Your task to perform on an android device: turn on improve location accuracy Image 0: 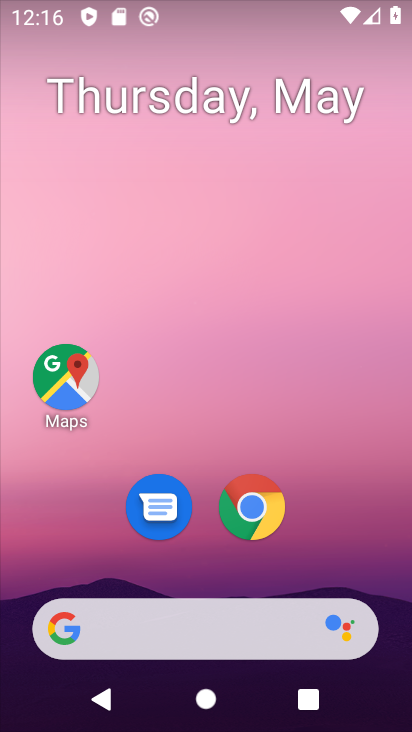
Step 0: drag from (122, 580) to (258, 38)
Your task to perform on an android device: turn on improve location accuracy Image 1: 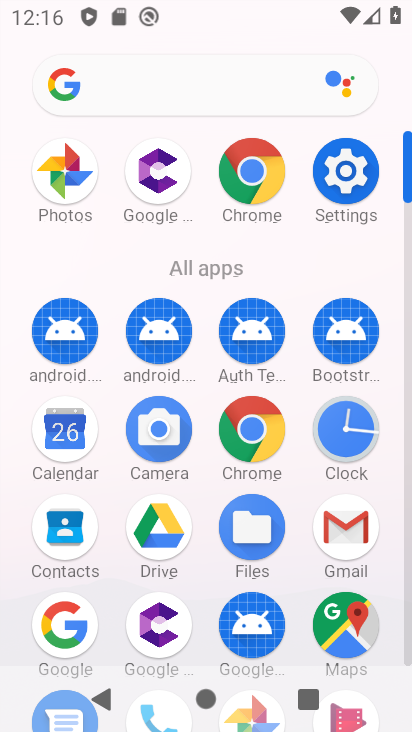
Step 1: click (353, 173)
Your task to perform on an android device: turn on improve location accuracy Image 2: 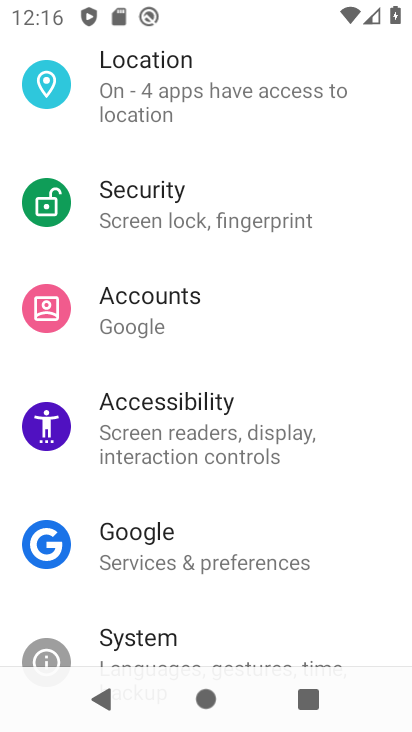
Step 2: drag from (203, 588) to (256, 682)
Your task to perform on an android device: turn on improve location accuracy Image 3: 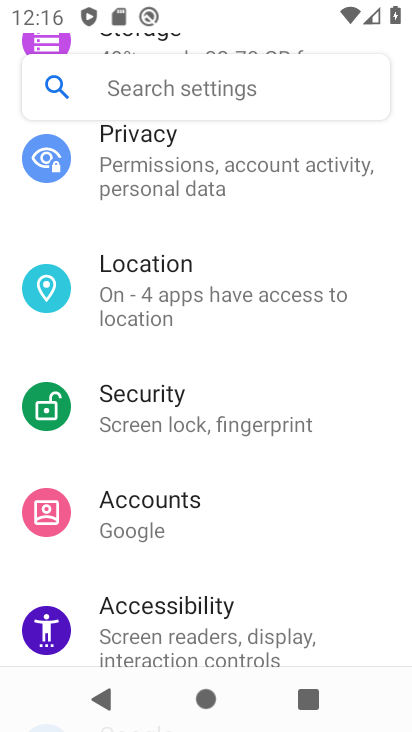
Step 3: drag from (292, 212) to (152, 672)
Your task to perform on an android device: turn on improve location accuracy Image 4: 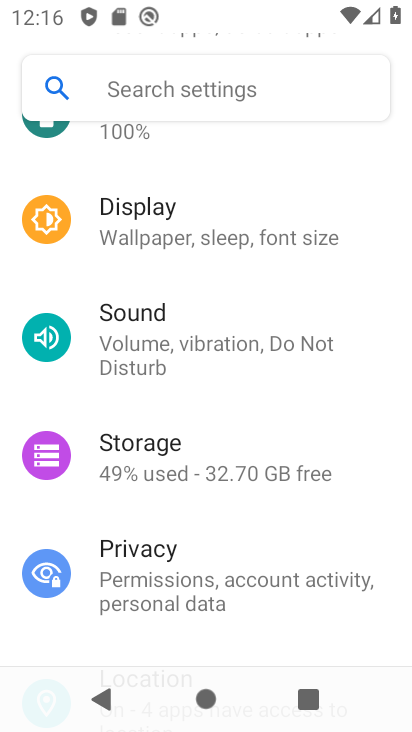
Step 4: drag from (231, 217) to (343, 82)
Your task to perform on an android device: turn on improve location accuracy Image 5: 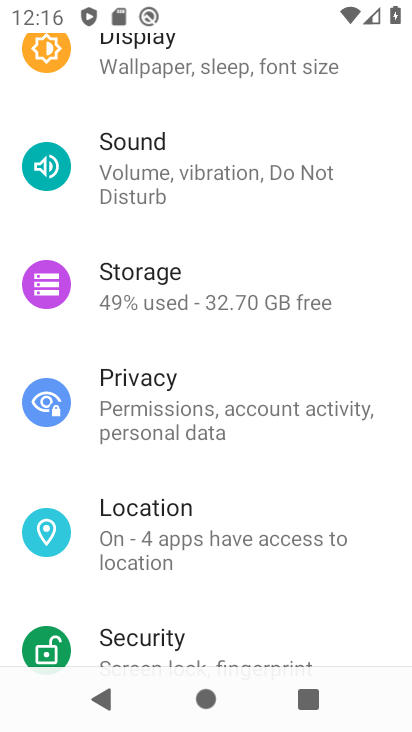
Step 5: click (184, 530)
Your task to perform on an android device: turn on improve location accuracy Image 6: 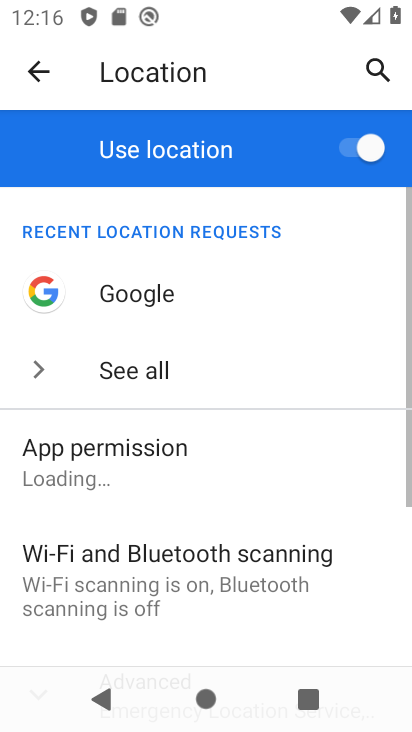
Step 6: drag from (205, 578) to (292, 238)
Your task to perform on an android device: turn on improve location accuracy Image 7: 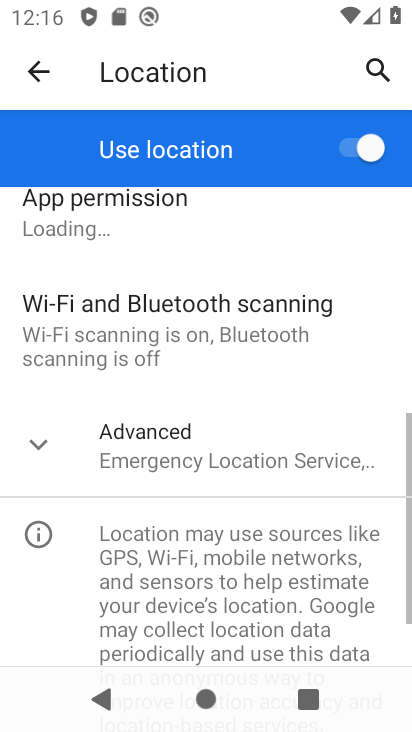
Step 7: click (194, 456)
Your task to perform on an android device: turn on improve location accuracy Image 8: 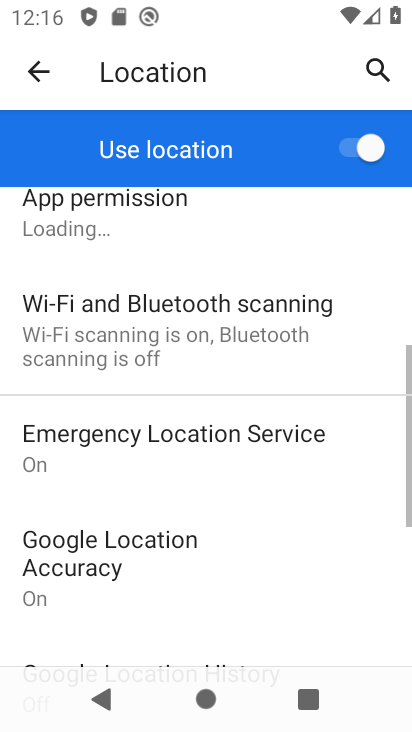
Step 8: drag from (172, 618) to (288, 325)
Your task to perform on an android device: turn on improve location accuracy Image 9: 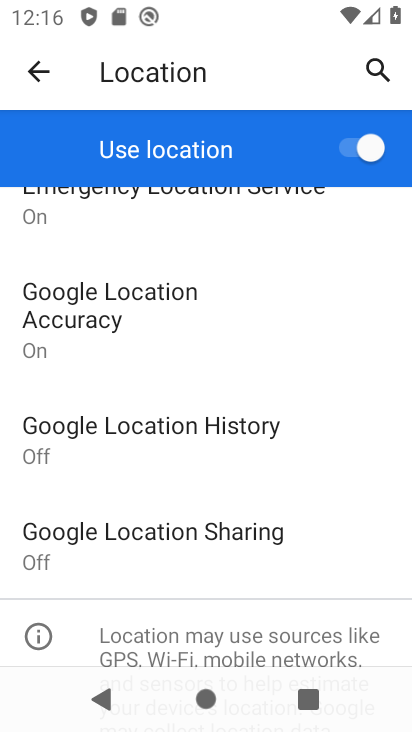
Step 9: click (220, 322)
Your task to perform on an android device: turn on improve location accuracy Image 10: 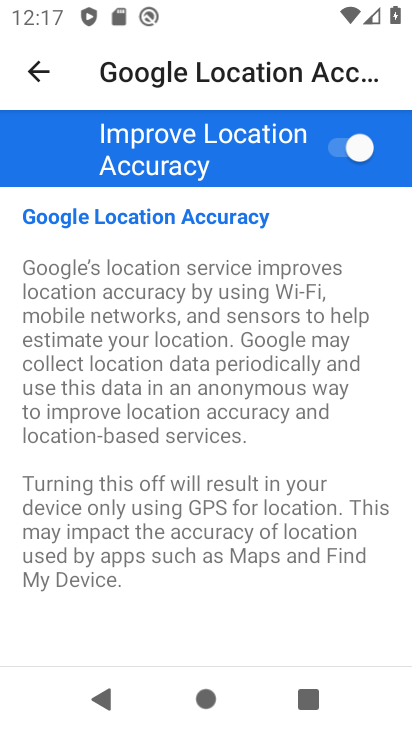
Step 10: task complete